Your task to perform on an android device: install app "Fetch Rewards" Image 0: 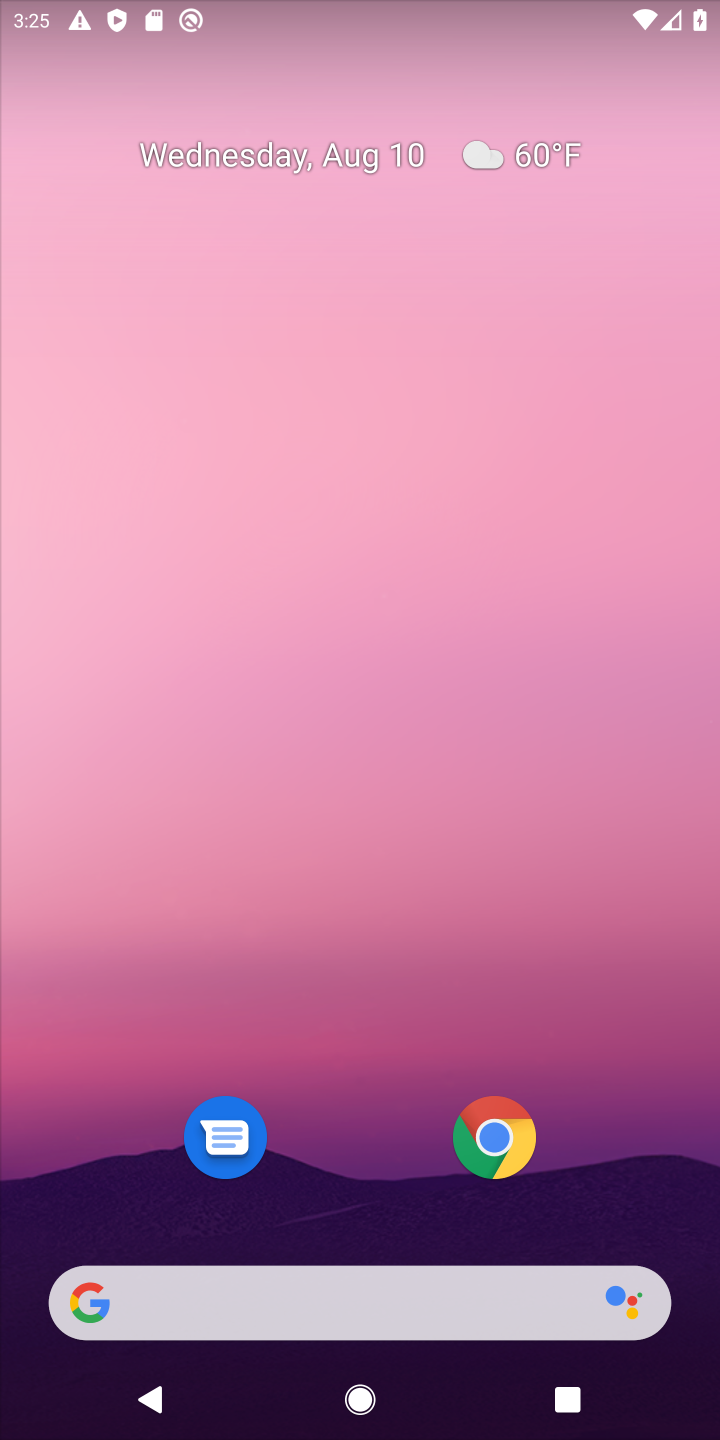
Step 0: drag from (321, 1229) to (419, 218)
Your task to perform on an android device: install app "Fetch Rewards" Image 1: 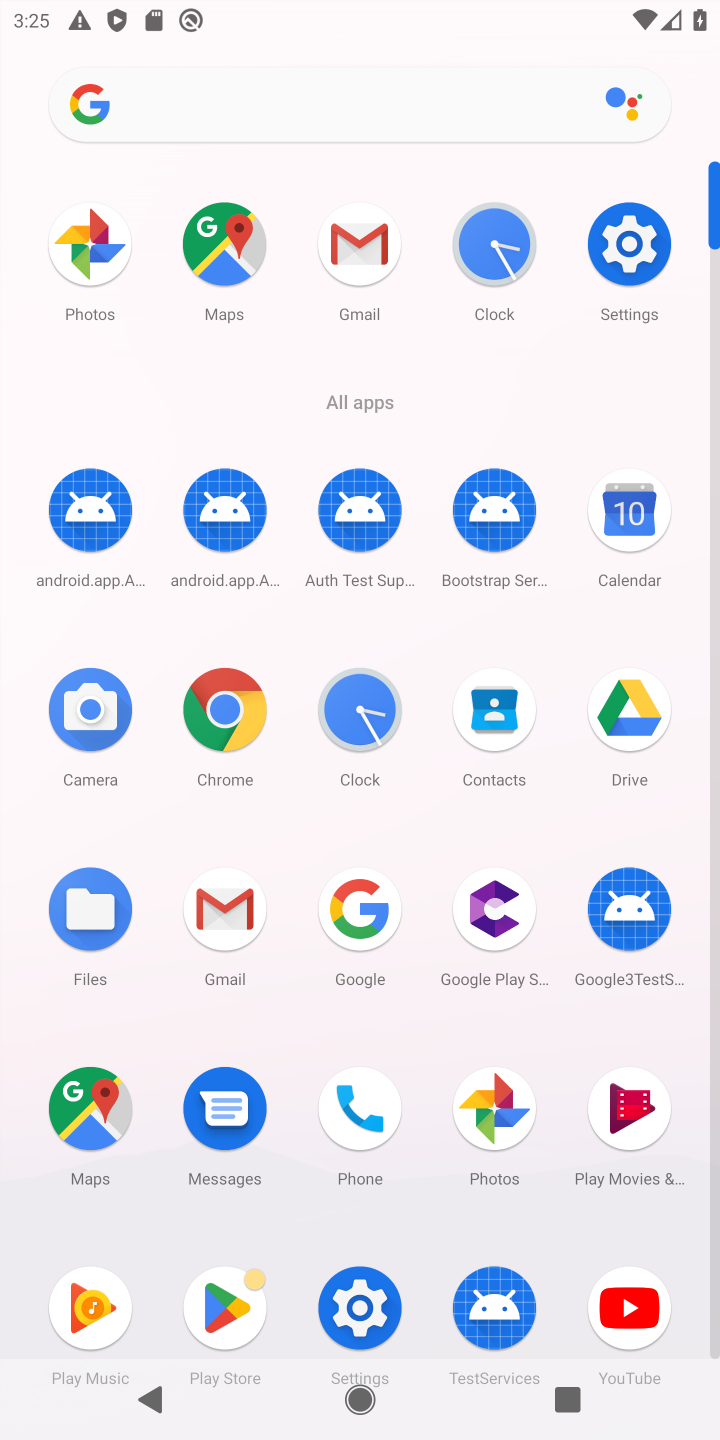
Step 1: click (234, 1316)
Your task to perform on an android device: install app "Fetch Rewards" Image 2: 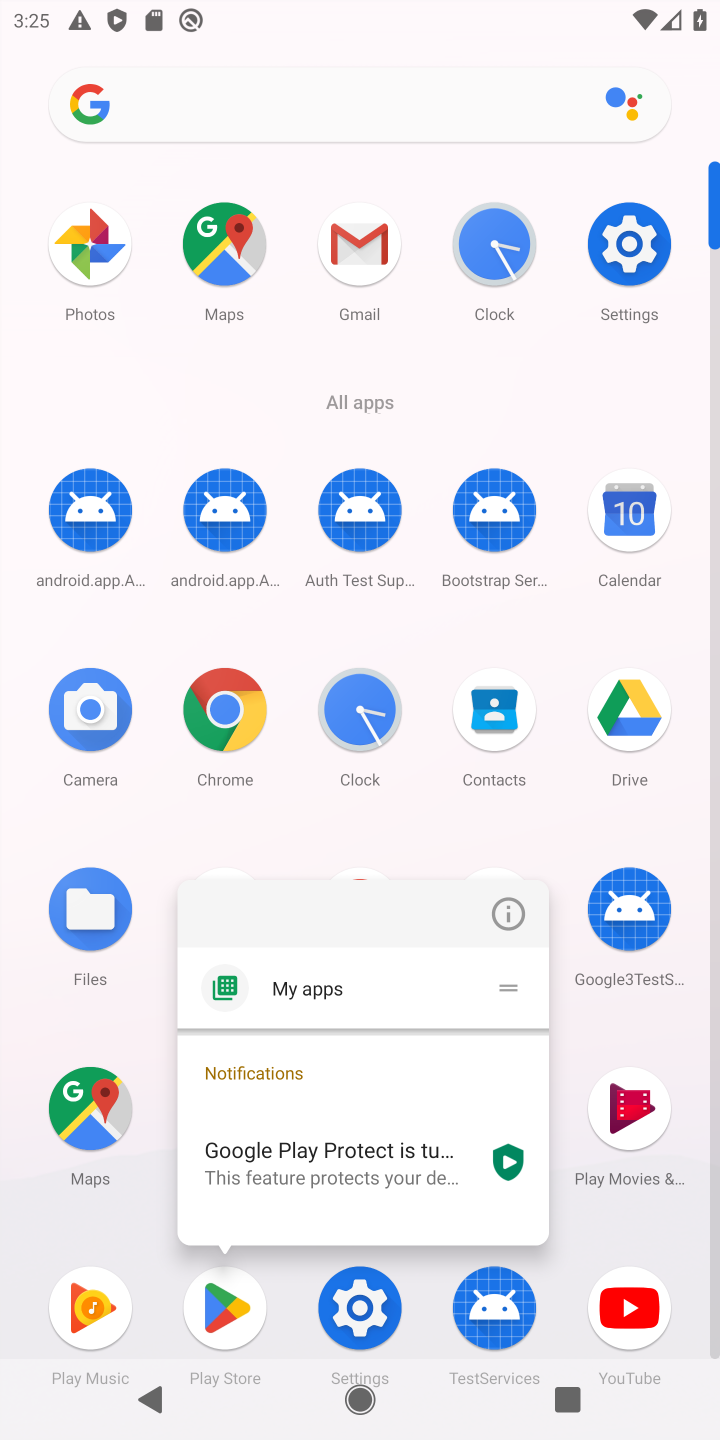
Step 2: click (234, 1316)
Your task to perform on an android device: install app "Fetch Rewards" Image 3: 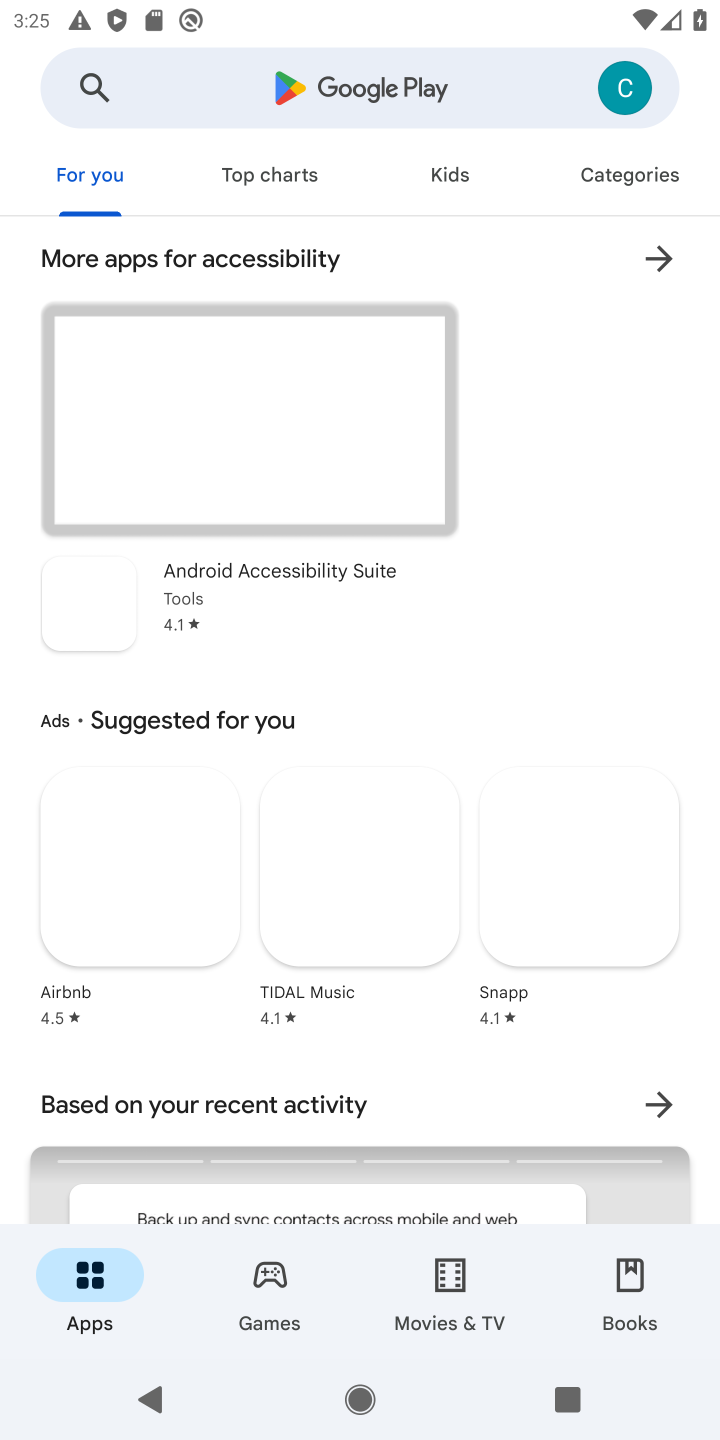
Step 3: click (410, 91)
Your task to perform on an android device: install app "Fetch Rewards" Image 4: 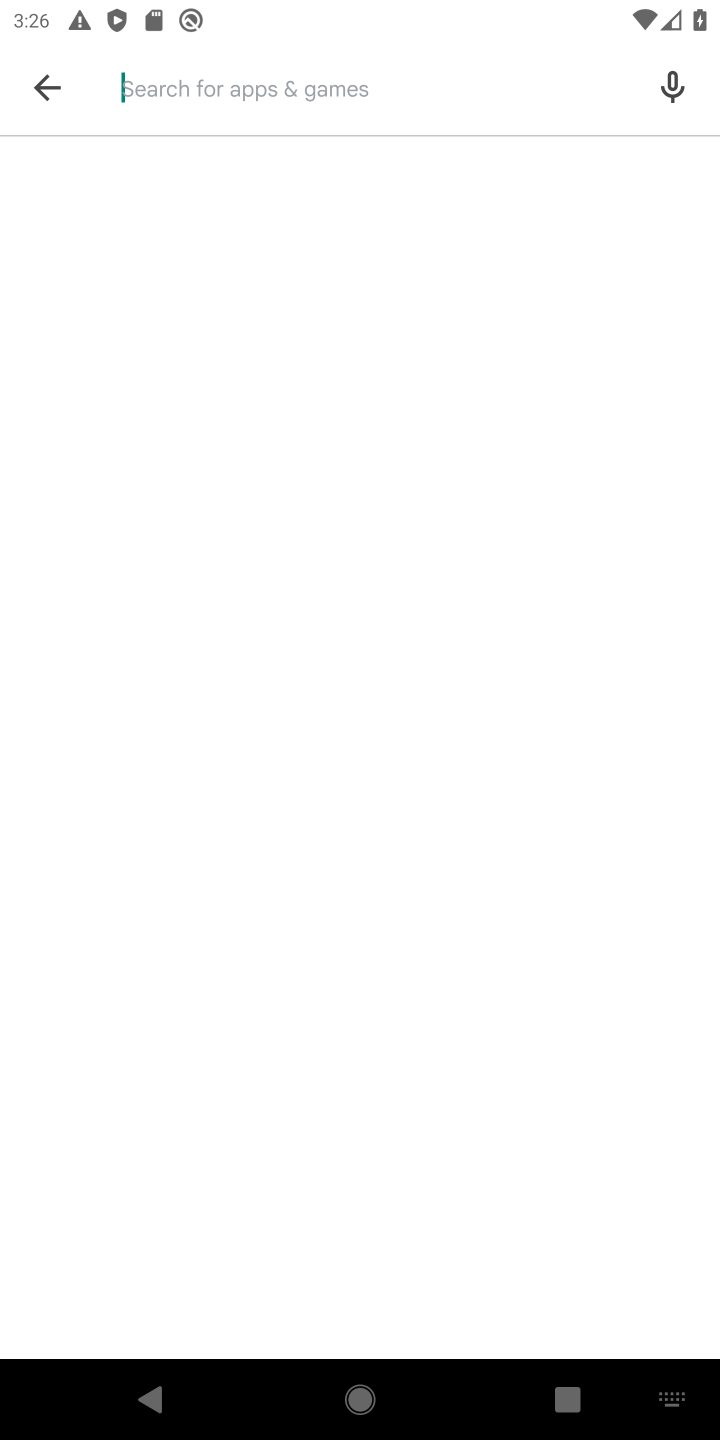
Step 4: type "Fetch Rewards"
Your task to perform on an android device: install app "Fetch Rewards" Image 5: 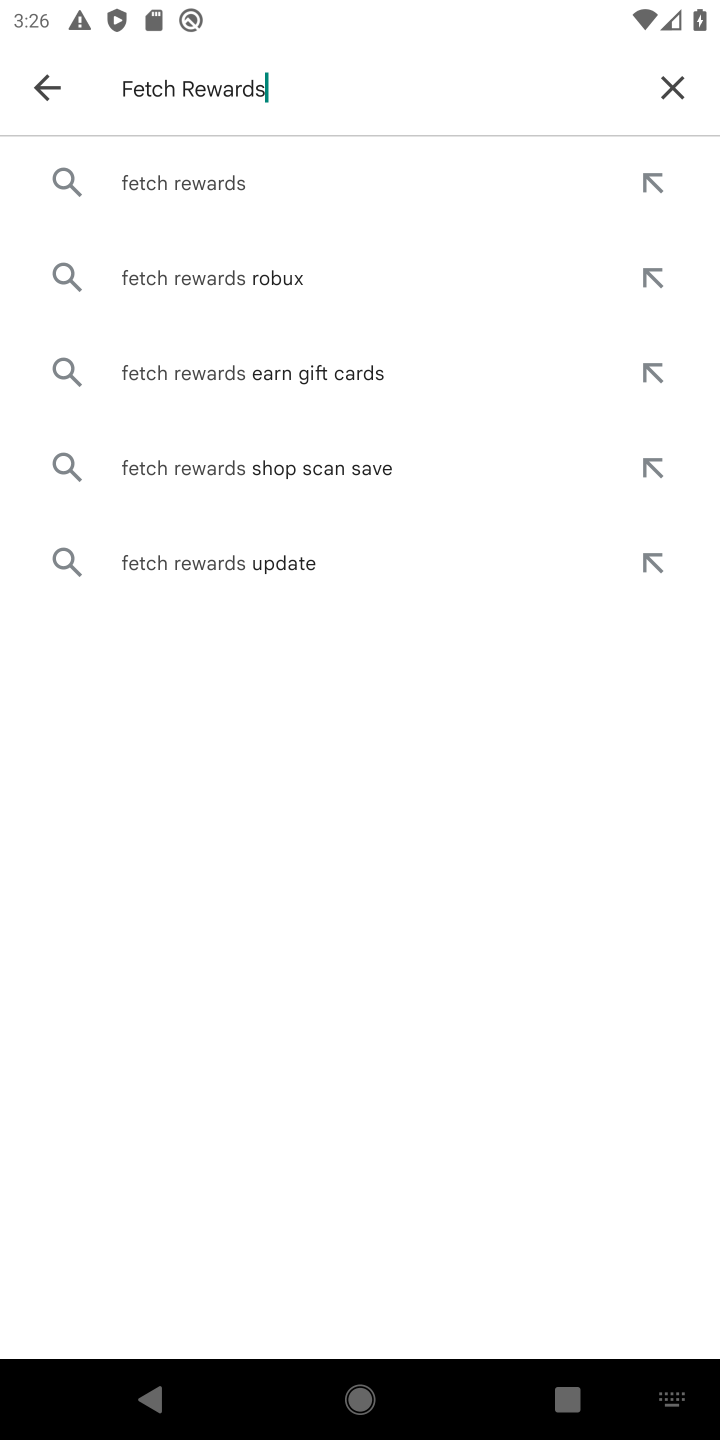
Step 5: click (186, 194)
Your task to perform on an android device: install app "Fetch Rewards" Image 6: 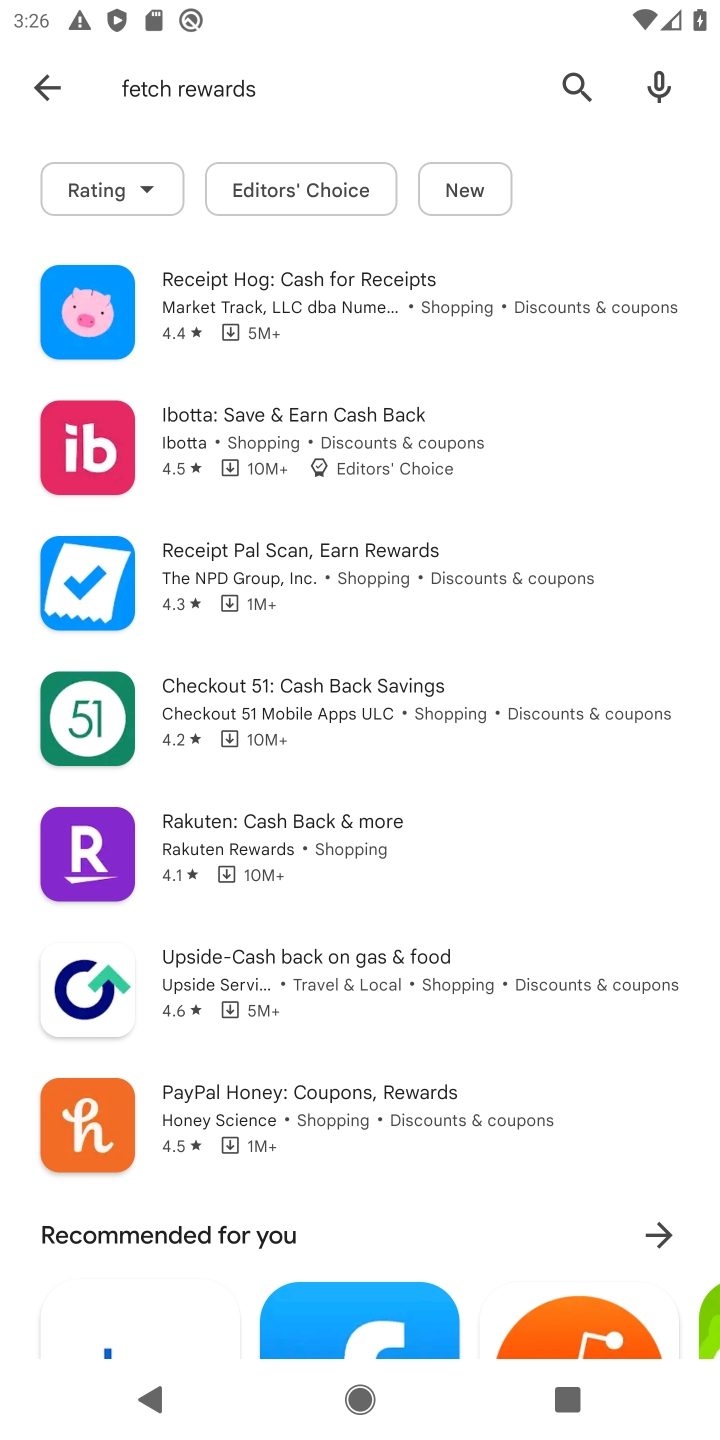
Step 6: task complete